Your task to perform on an android device: Open Wikipedia Image 0: 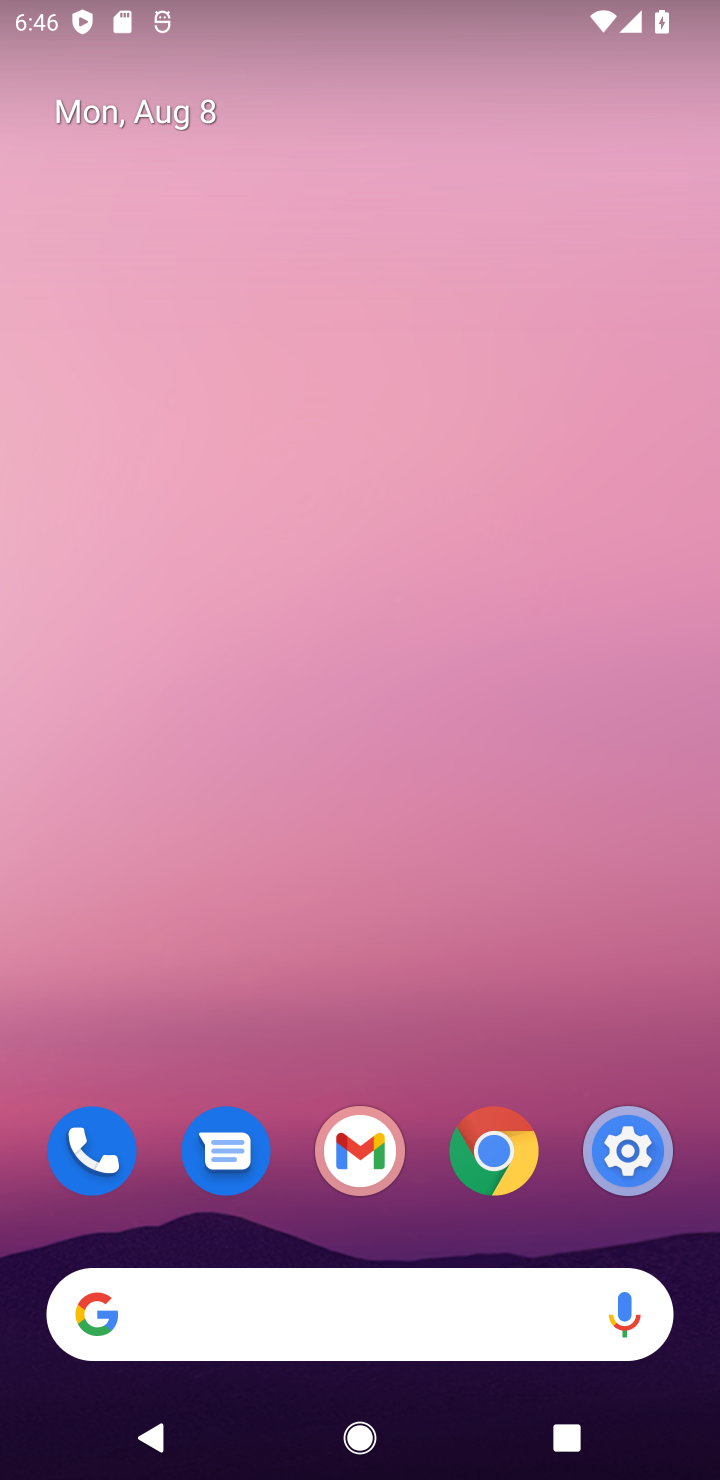
Step 0: click (496, 1137)
Your task to perform on an android device: Open Wikipedia Image 1: 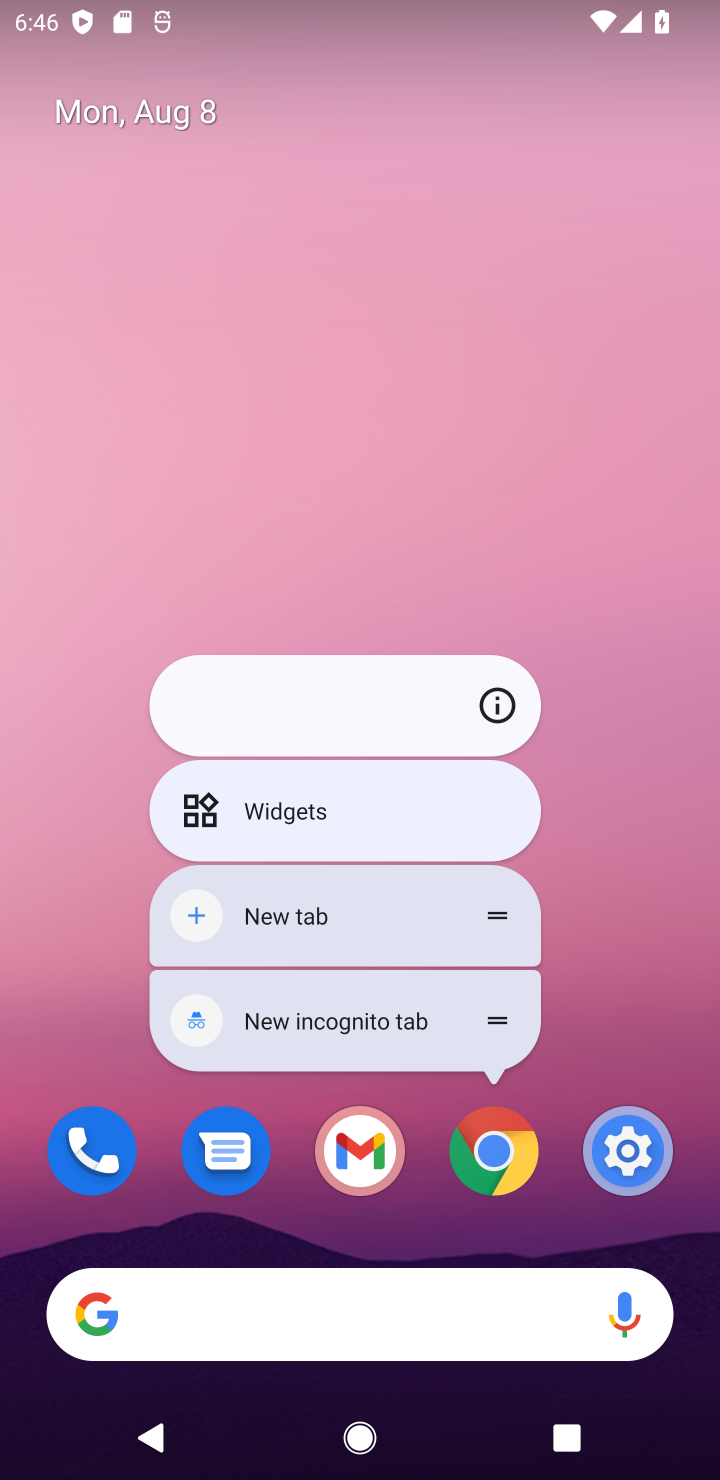
Step 1: click (496, 1137)
Your task to perform on an android device: Open Wikipedia Image 2: 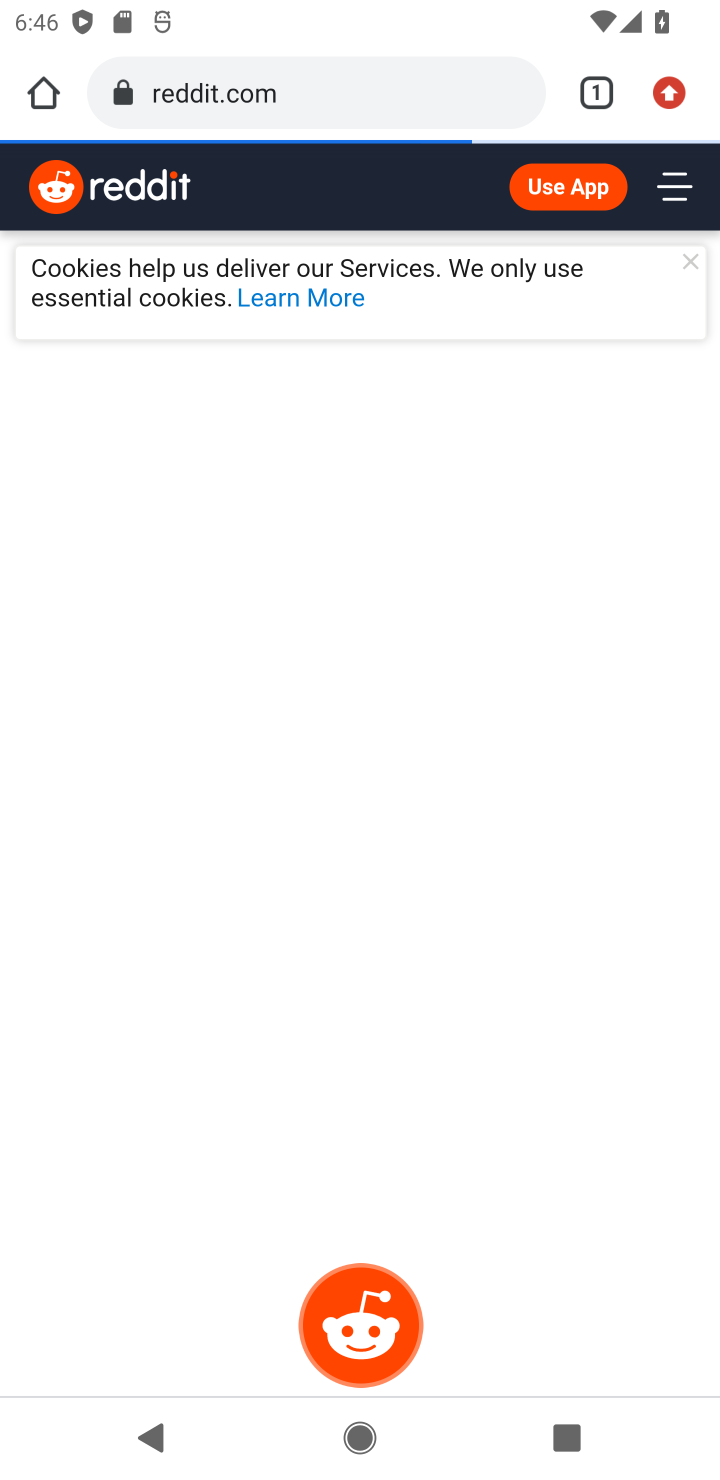
Step 2: click (336, 81)
Your task to perform on an android device: Open Wikipedia Image 3: 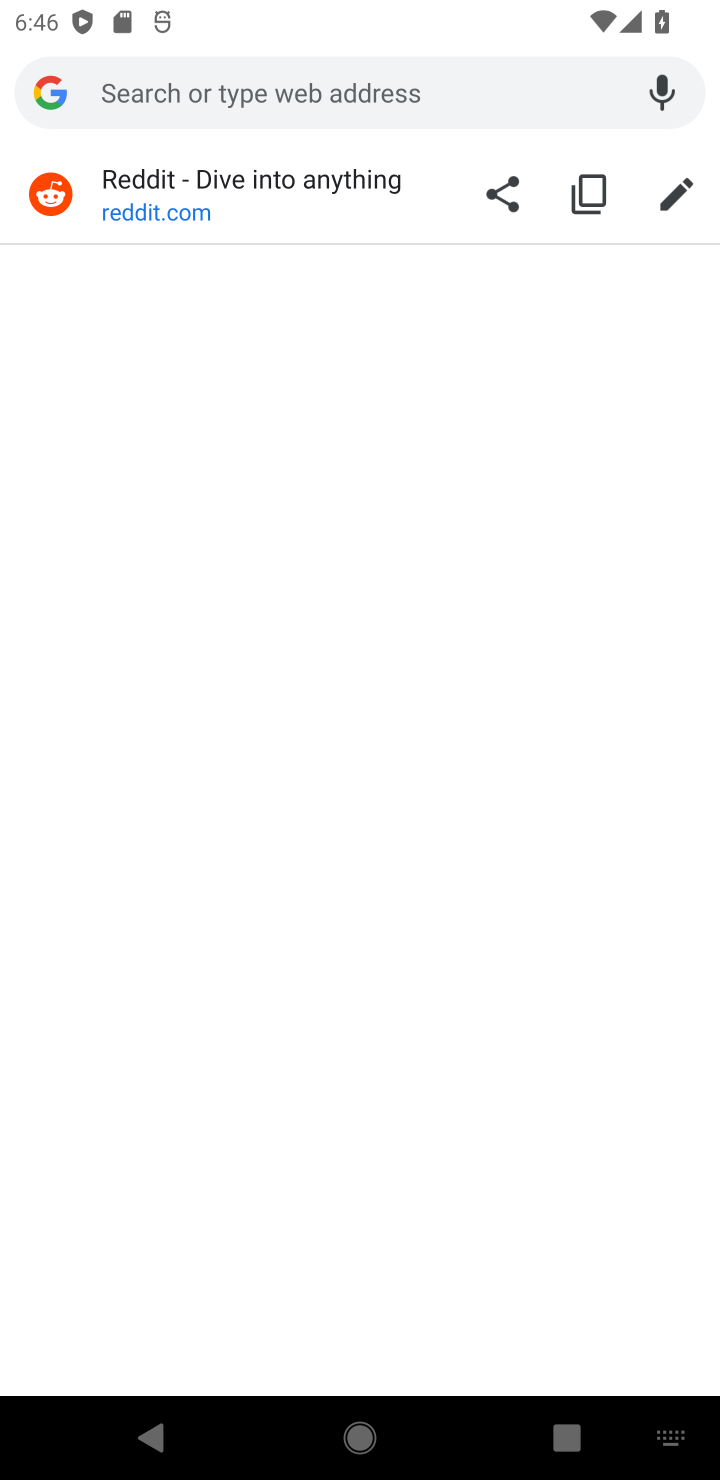
Step 3: type "wikipedia"
Your task to perform on an android device: Open Wikipedia Image 4: 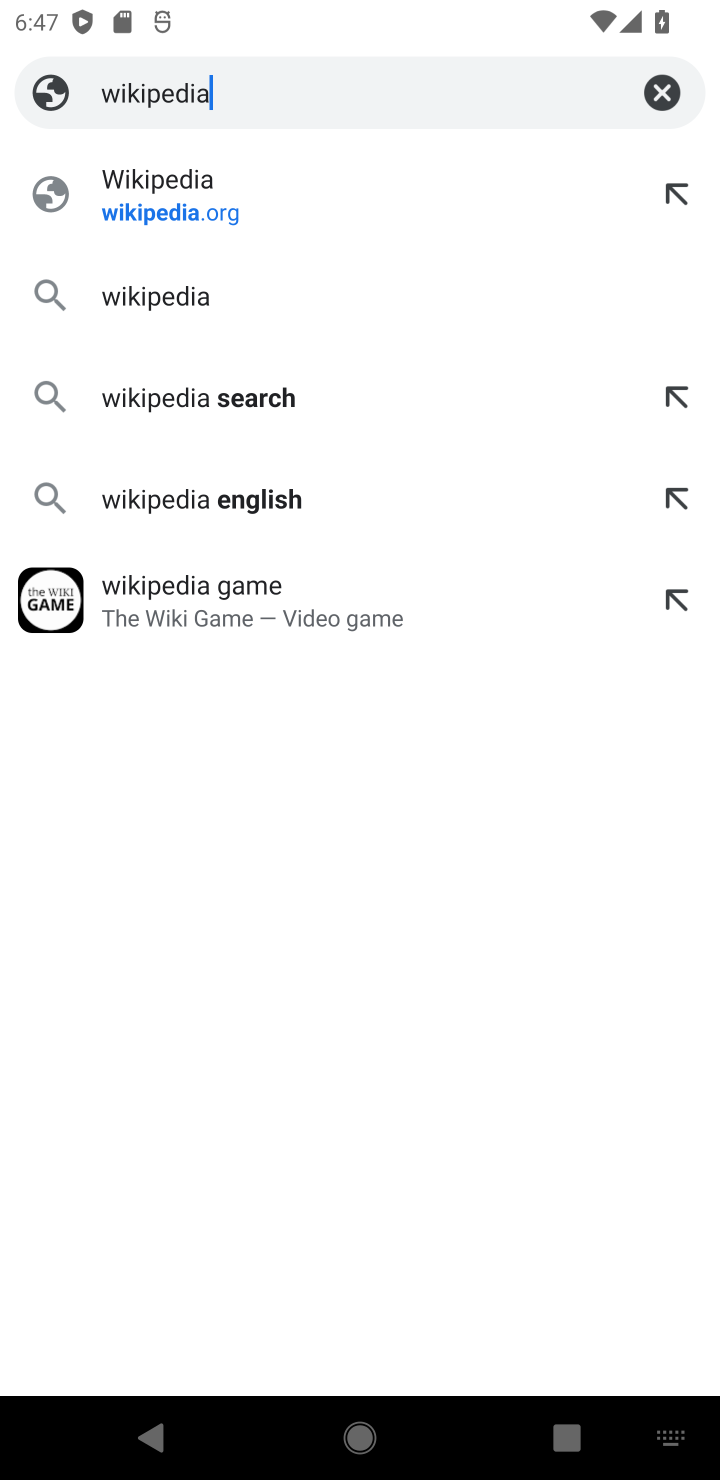
Step 4: click (315, 165)
Your task to perform on an android device: Open Wikipedia Image 5: 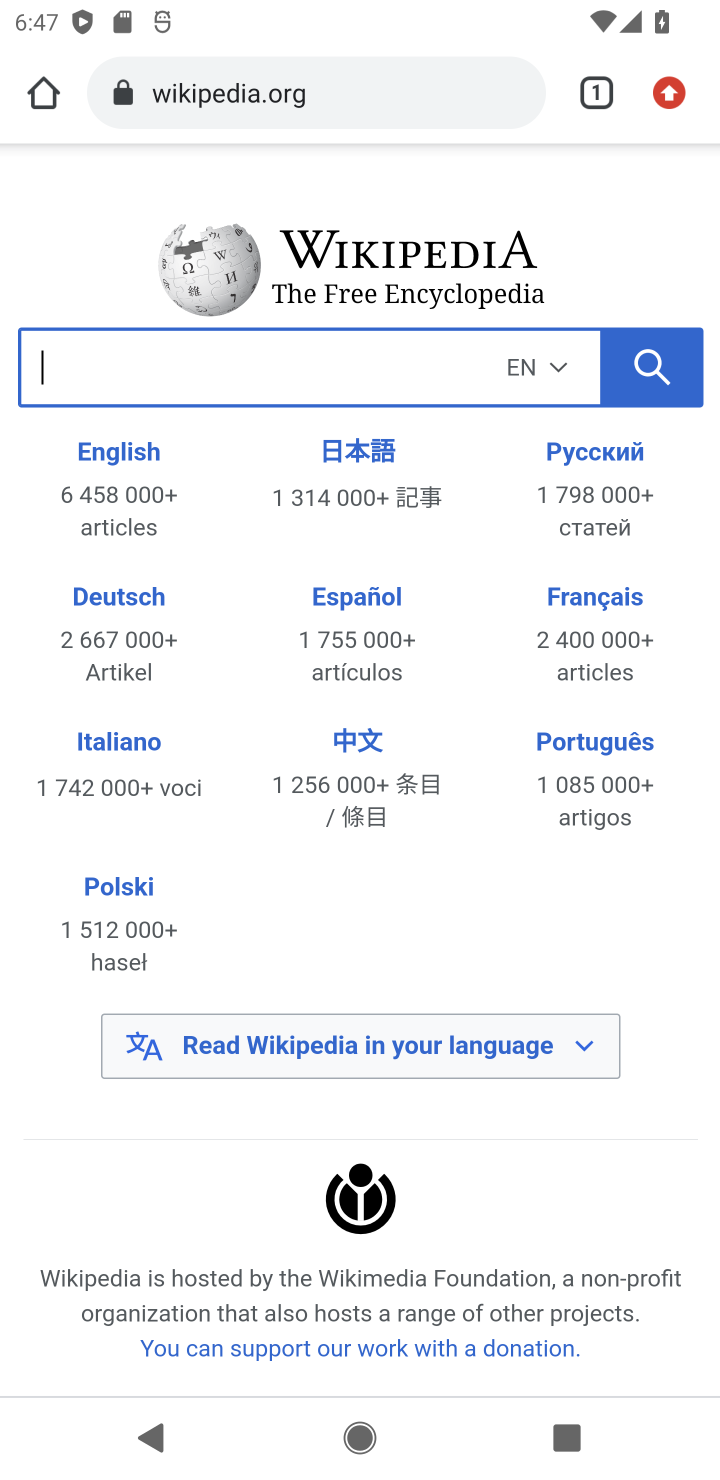
Step 5: task complete